Your task to perform on an android device: turn on sleep mode Image 0: 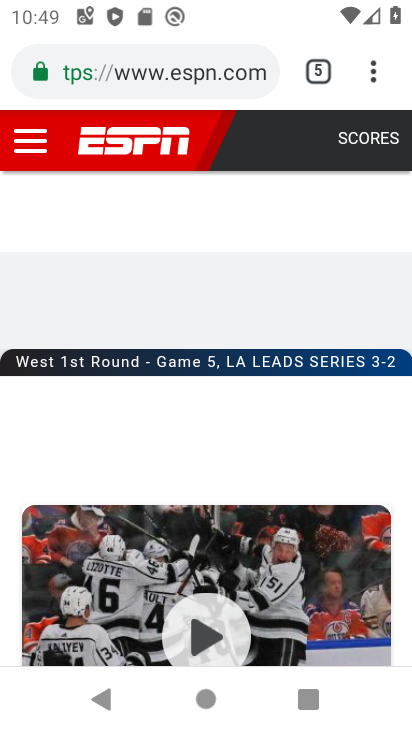
Step 0: press home button
Your task to perform on an android device: turn on sleep mode Image 1: 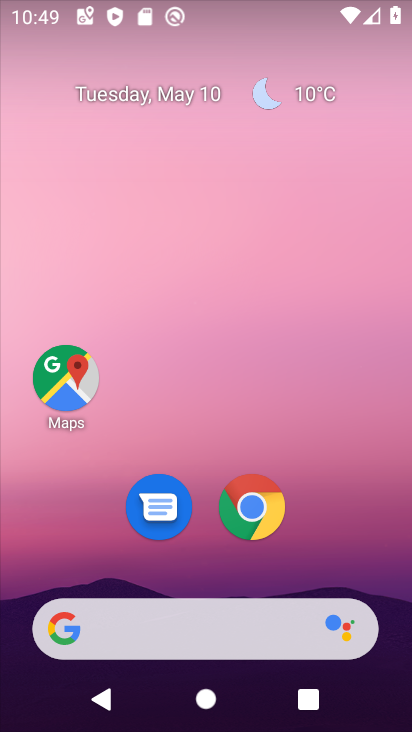
Step 1: drag from (231, 724) to (234, 86)
Your task to perform on an android device: turn on sleep mode Image 2: 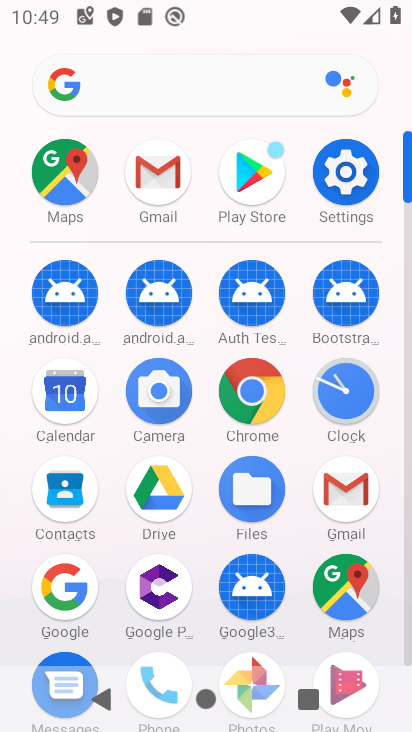
Step 2: click (350, 170)
Your task to perform on an android device: turn on sleep mode Image 3: 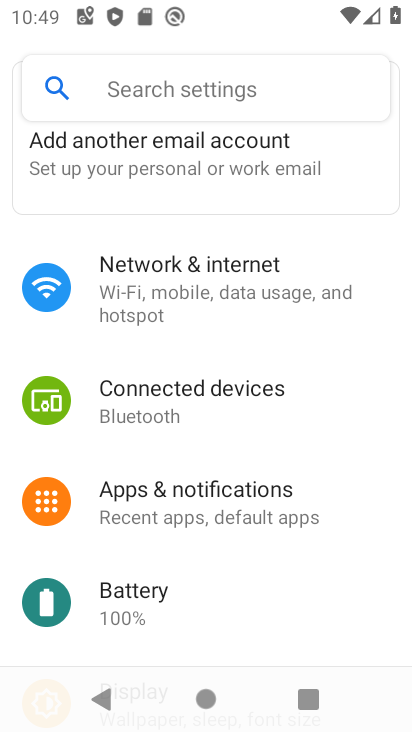
Step 3: drag from (192, 599) to (217, 253)
Your task to perform on an android device: turn on sleep mode Image 4: 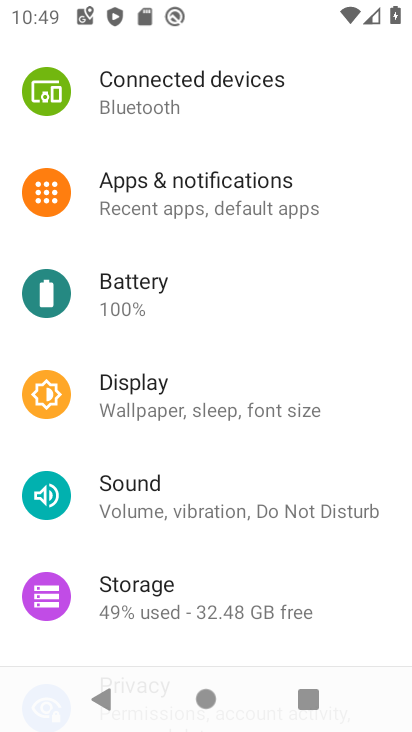
Step 4: click (240, 411)
Your task to perform on an android device: turn on sleep mode Image 5: 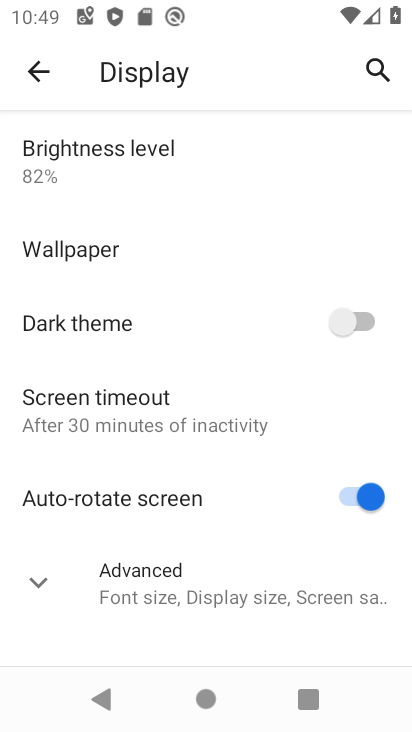
Step 5: task complete